Your task to perform on an android device: Is it going to rain tomorrow? Image 0: 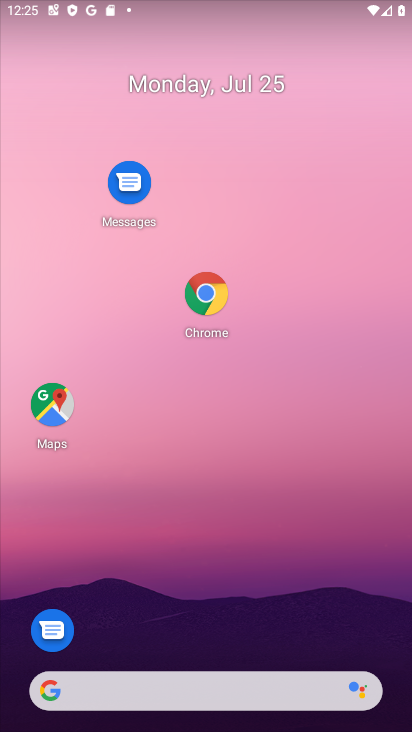
Step 0: press home button
Your task to perform on an android device: Is it going to rain tomorrow? Image 1: 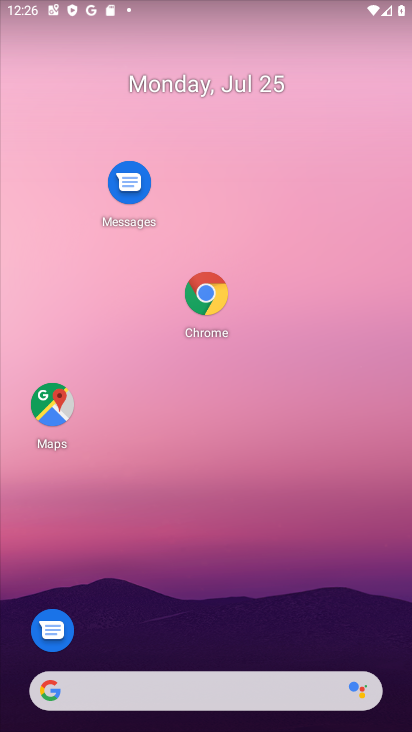
Step 1: click (193, 316)
Your task to perform on an android device: Is it going to rain tomorrow? Image 2: 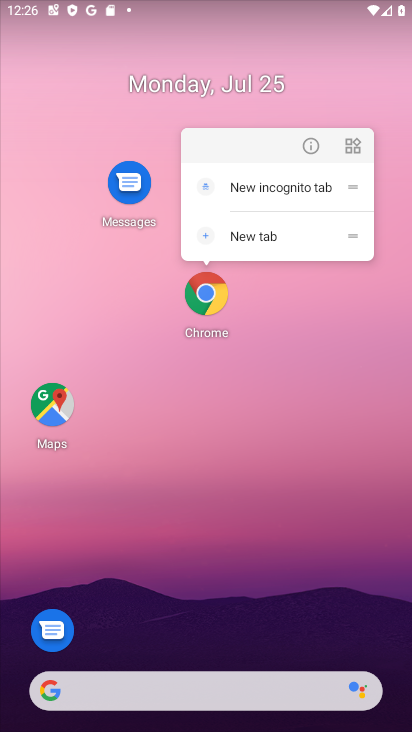
Step 2: click (228, 307)
Your task to perform on an android device: Is it going to rain tomorrow? Image 3: 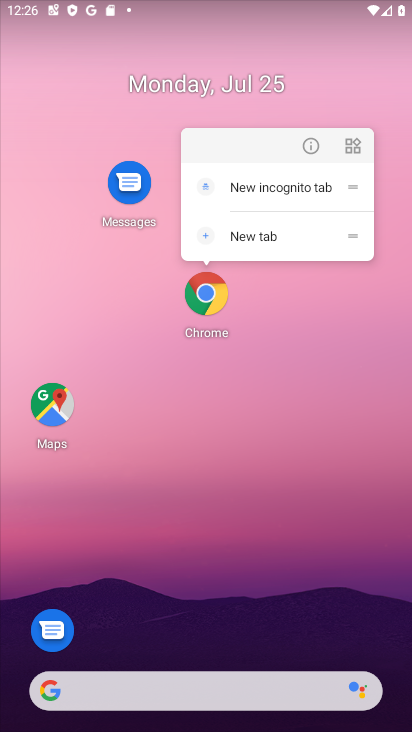
Step 3: click (207, 307)
Your task to perform on an android device: Is it going to rain tomorrow? Image 4: 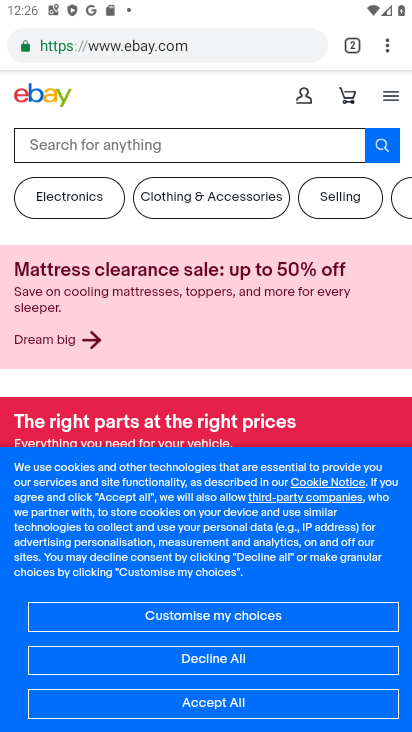
Step 4: click (172, 42)
Your task to perform on an android device: Is it going to rain tomorrow? Image 5: 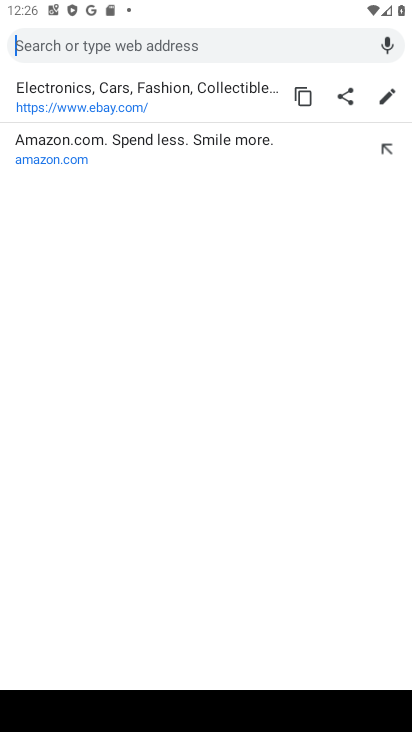
Step 5: type "Is it going to rain tomorrow?"
Your task to perform on an android device: Is it going to rain tomorrow? Image 6: 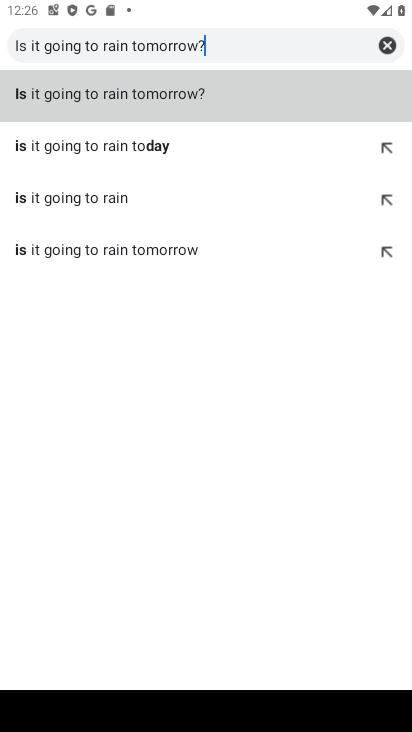
Step 6: type ""
Your task to perform on an android device: Is it going to rain tomorrow? Image 7: 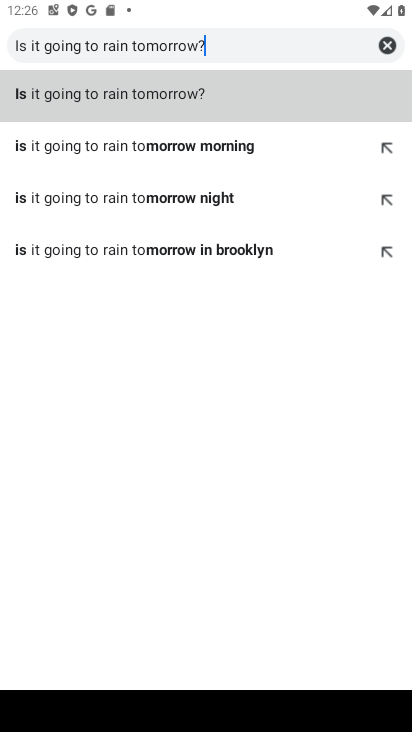
Step 7: click (198, 93)
Your task to perform on an android device: Is it going to rain tomorrow? Image 8: 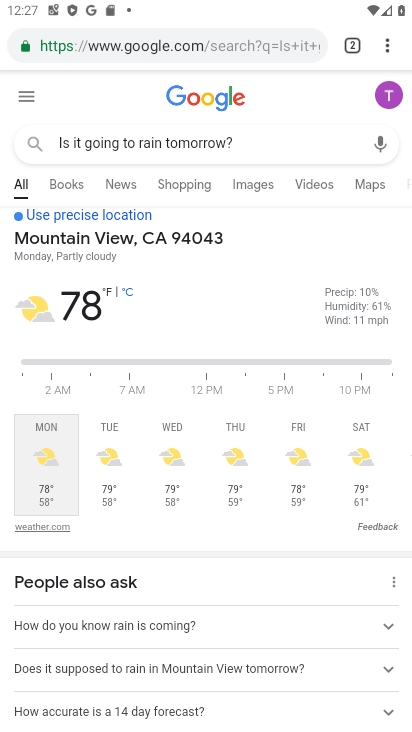
Step 8: task complete